Your task to perform on an android device: Go to CNN.com Image 0: 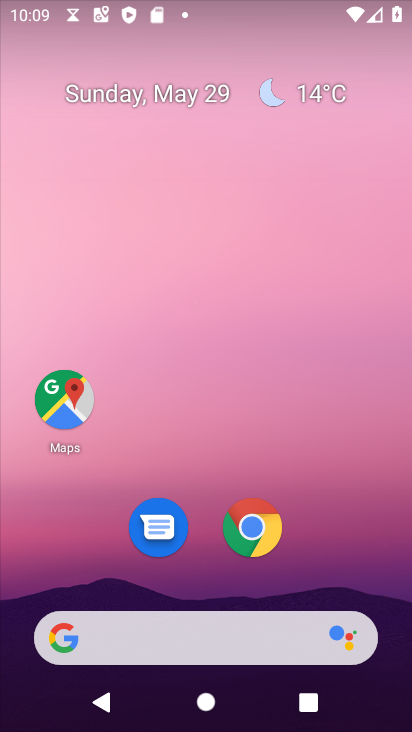
Step 0: press home button
Your task to perform on an android device: Go to CNN.com Image 1: 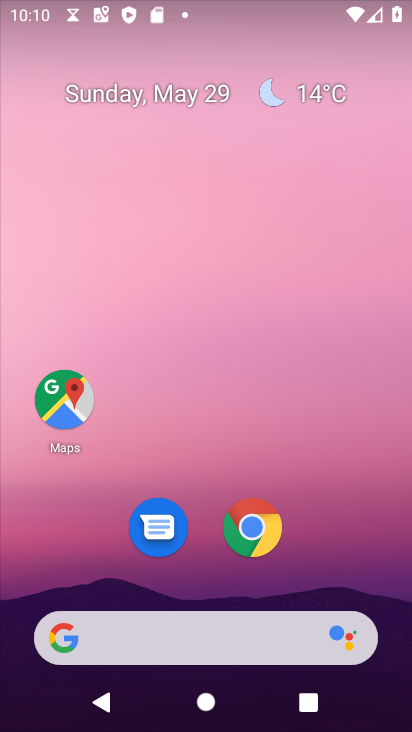
Step 1: click (246, 549)
Your task to perform on an android device: Go to CNN.com Image 2: 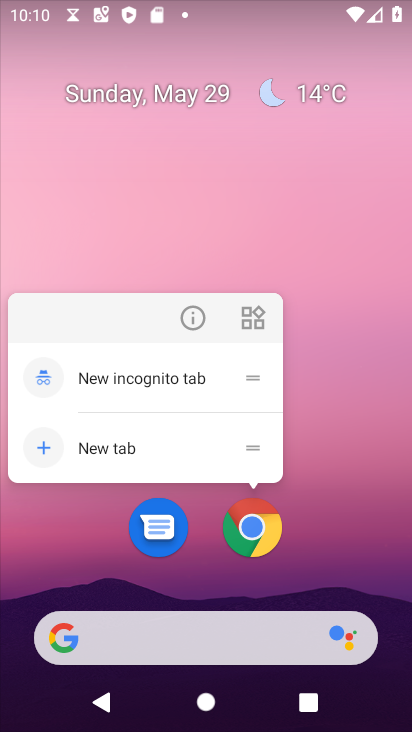
Step 2: click (250, 526)
Your task to perform on an android device: Go to CNN.com Image 3: 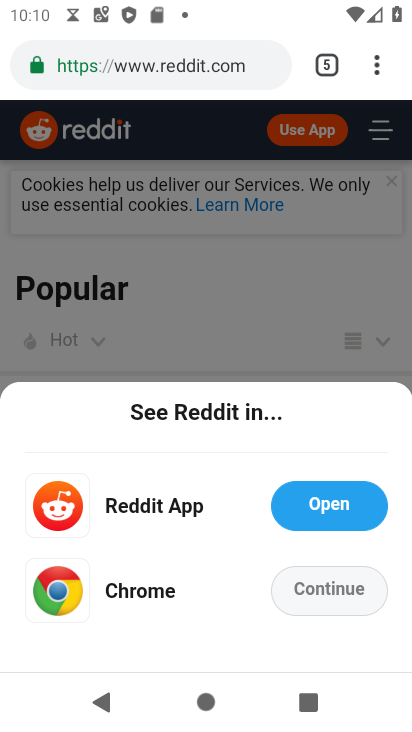
Step 3: drag from (376, 57) to (204, 123)
Your task to perform on an android device: Go to CNN.com Image 4: 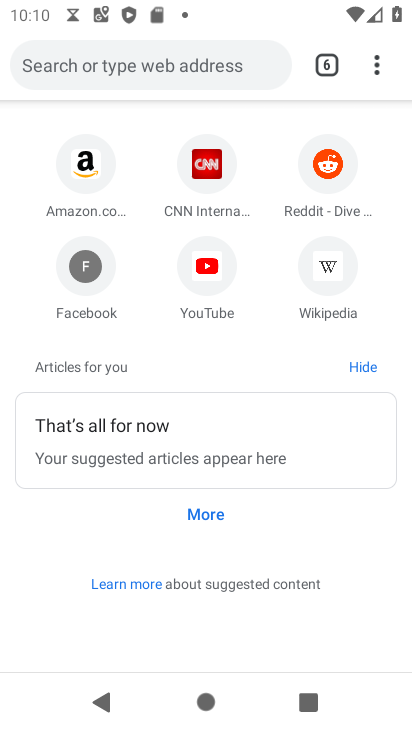
Step 4: click (137, 61)
Your task to perform on an android device: Go to CNN.com Image 5: 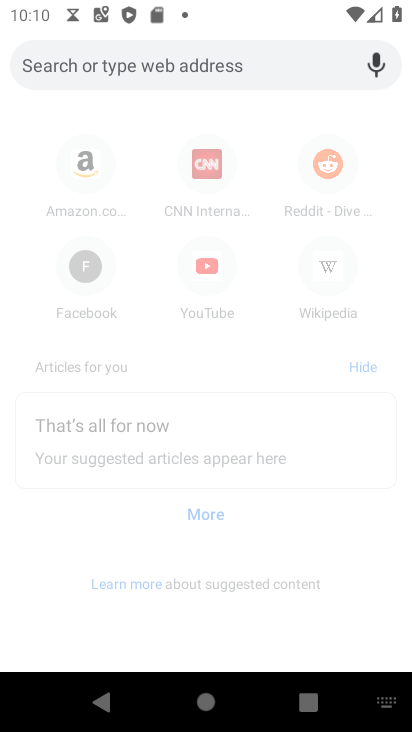
Step 5: type "cnn.com"
Your task to perform on an android device: Go to CNN.com Image 6: 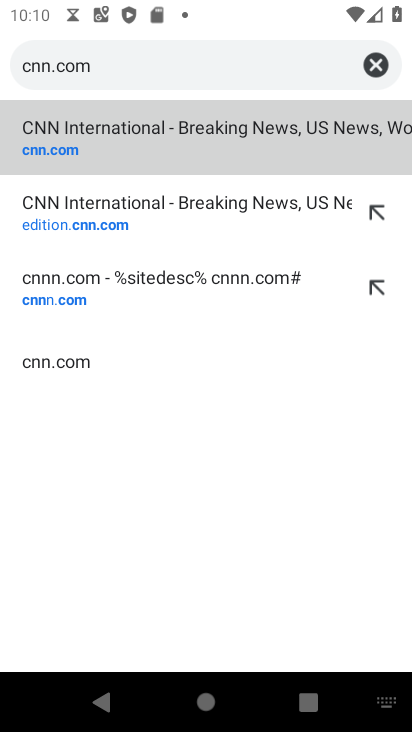
Step 6: click (150, 135)
Your task to perform on an android device: Go to CNN.com Image 7: 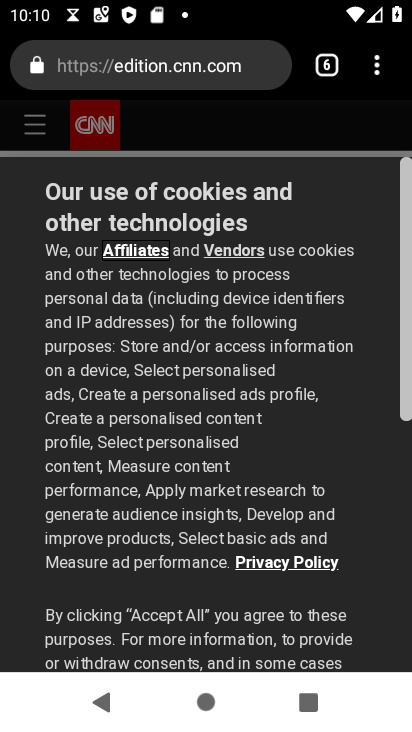
Step 7: drag from (204, 584) to (363, 72)
Your task to perform on an android device: Go to CNN.com Image 8: 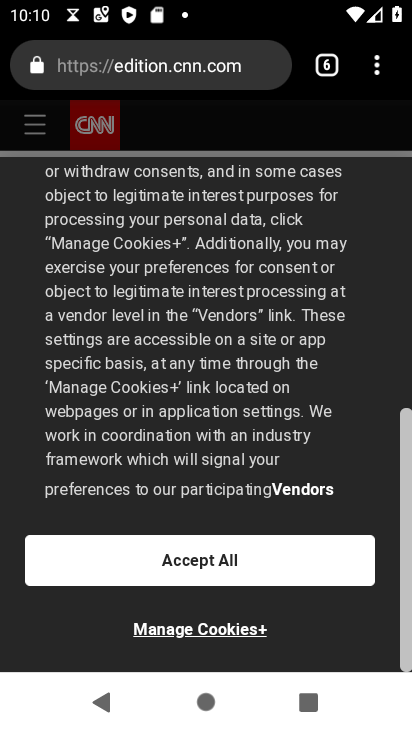
Step 8: click (237, 565)
Your task to perform on an android device: Go to CNN.com Image 9: 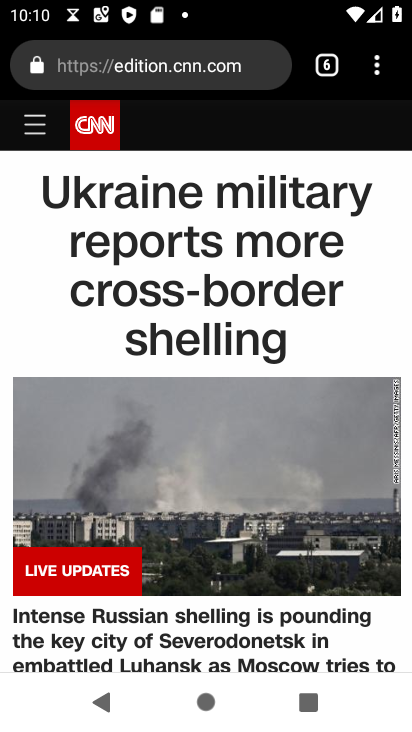
Step 9: task complete